Your task to perform on an android device: toggle wifi Image 0: 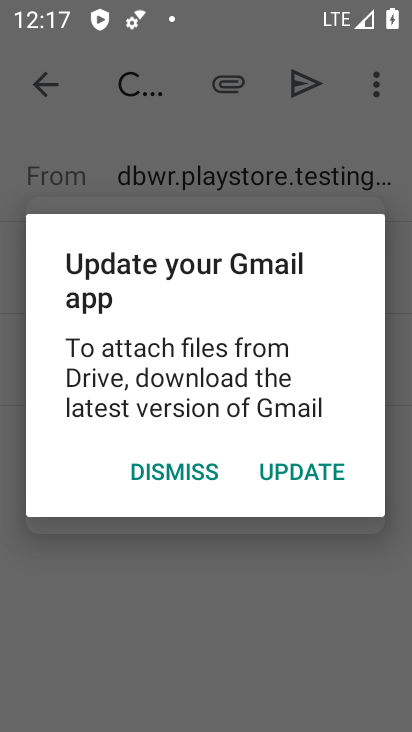
Step 0: press home button
Your task to perform on an android device: toggle wifi Image 1: 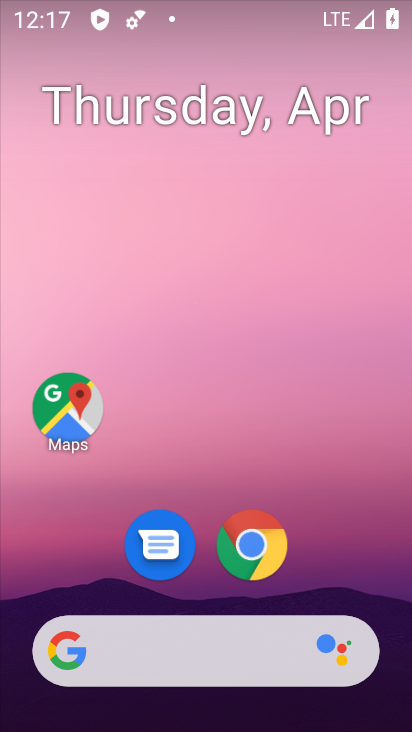
Step 1: drag from (283, 7) to (320, 429)
Your task to perform on an android device: toggle wifi Image 2: 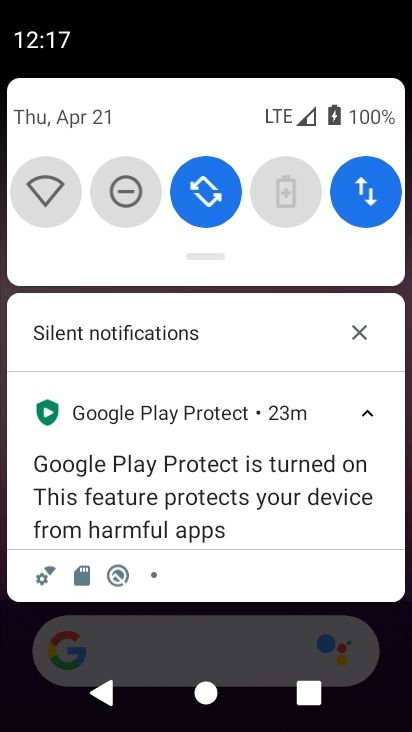
Step 2: click (52, 194)
Your task to perform on an android device: toggle wifi Image 3: 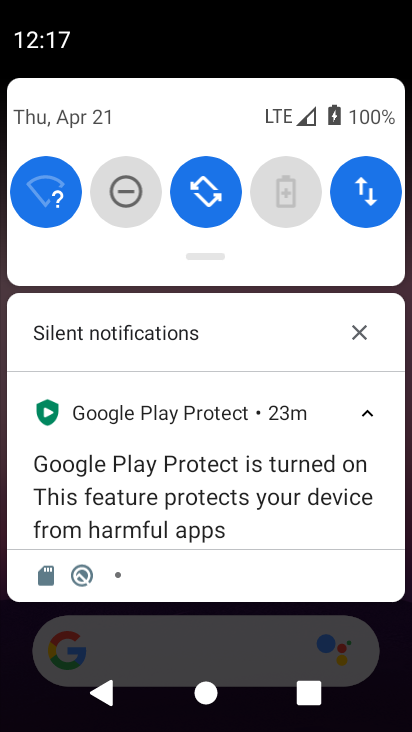
Step 3: task complete